Your task to perform on an android device: Turn on the flashlight Image 0: 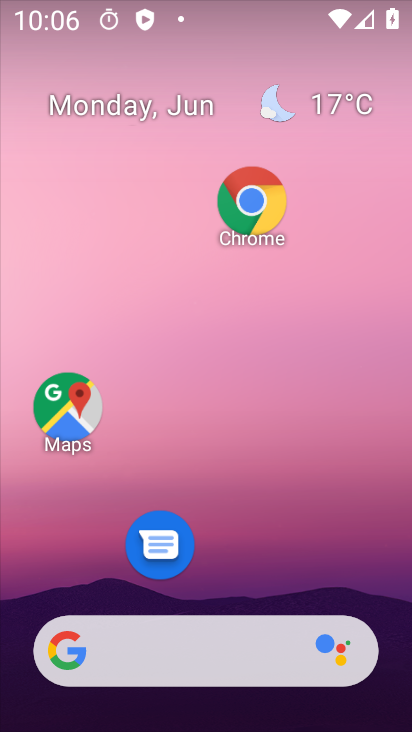
Step 0: drag from (251, 606) to (268, 66)
Your task to perform on an android device: Turn on the flashlight Image 1: 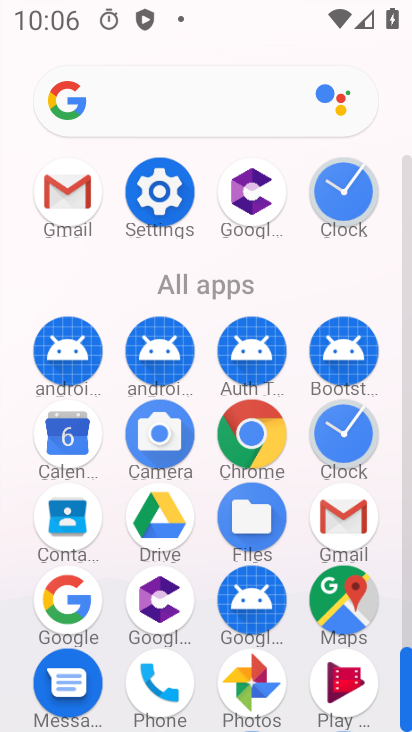
Step 1: click (171, 195)
Your task to perform on an android device: Turn on the flashlight Image 2: 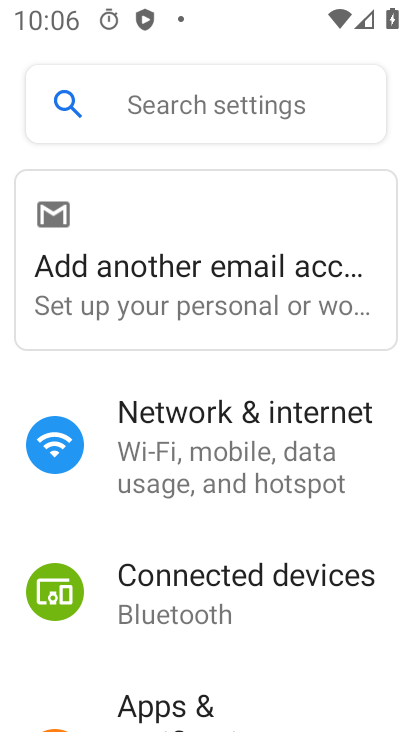
Step 2: task complete